Your task to perform on an android device: Open Google Maps and go to "Timeline" Image 0: 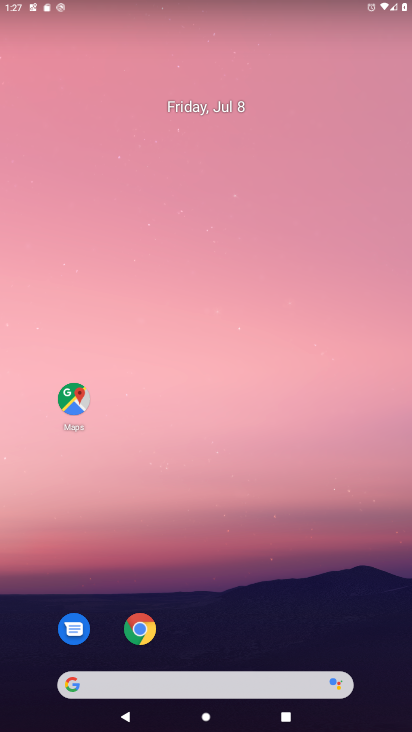
Step 0: drag from (220, 450) to (222, 195)
Your task to perform on an android device: Open Google Maps and go to "Timeline" Image 1: 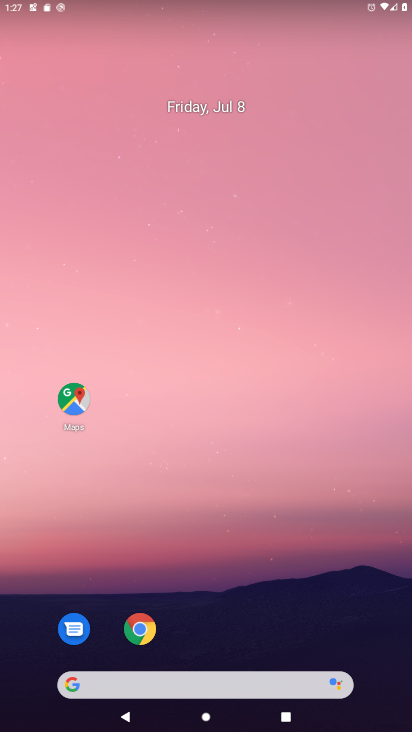
Step 1: click (74, 392)
Your task to perform on an android device: Open Google Maps and go to "Timeline" Image 2: 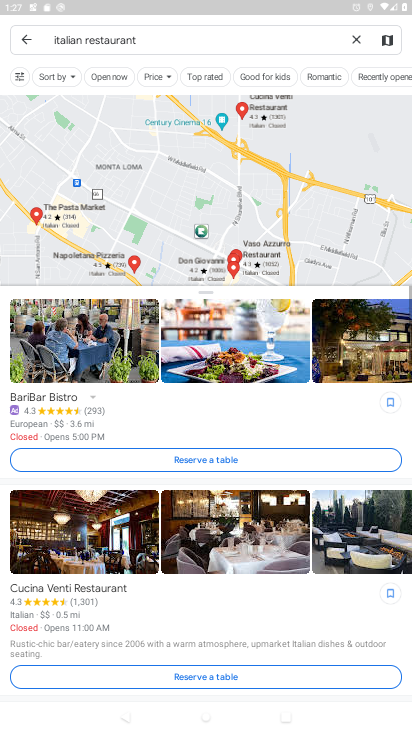
Step 2: click (21, 30)
Your task to perform on an android device: Open Google Maps and go to "Timeline" Image 3: 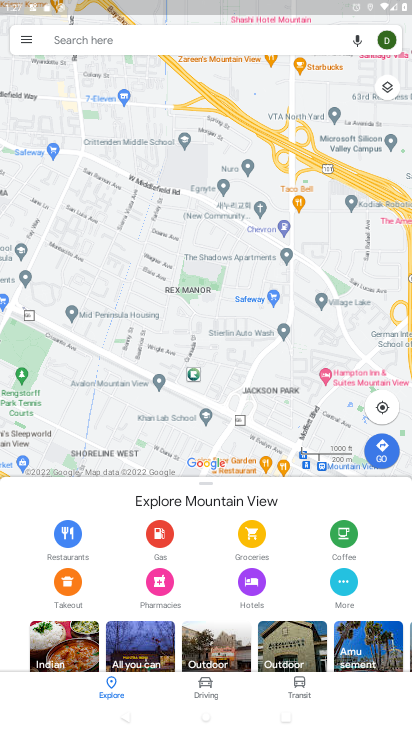
Step 3: click (24, 39)
Your task to perform on an android device: Open Google Maps and go to "Timeline" Image 4: 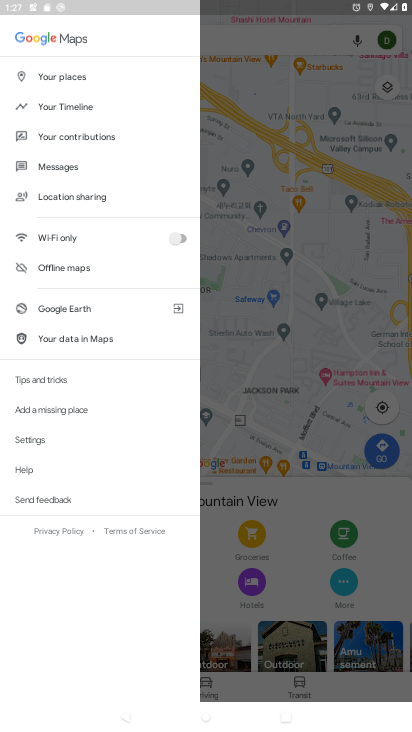
Step 4: click (72, 105)
Your task to perform on an android device: Open Google Maps and go to "Timeline" Image 5: 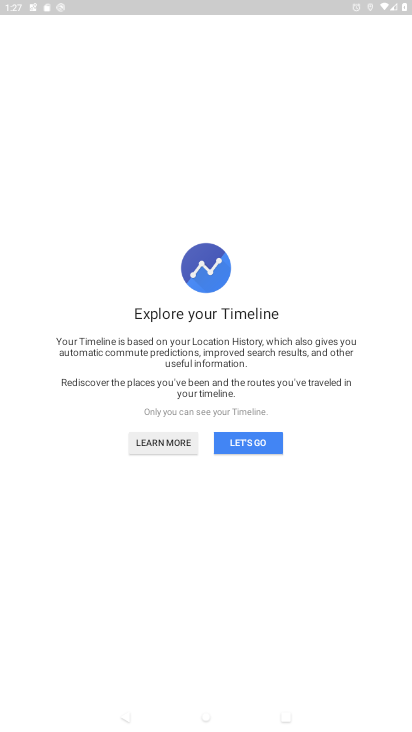
Step 5: click (254, 436)
Your task to perform on an android device: Open Google Maps and go to "Timeline" Image 6: 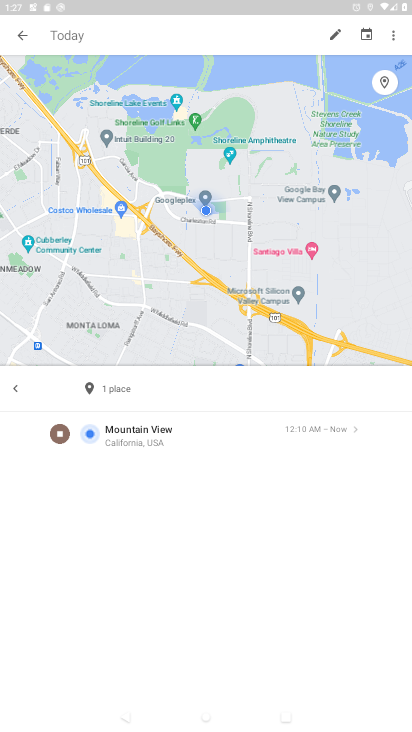
Step 6: task complete